Your task to perform on an android device: open app "Google Chrome" Image 0: 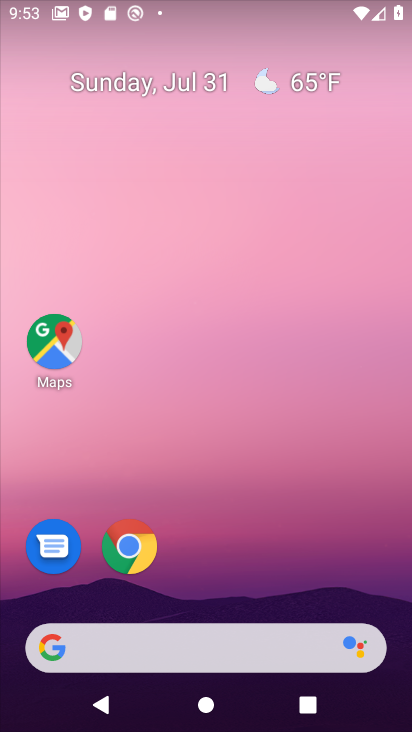
Step 0: drag from (241, 554) to (322, 10)
Your task to perform on an android device: open app "Google Chrome" Image 1: 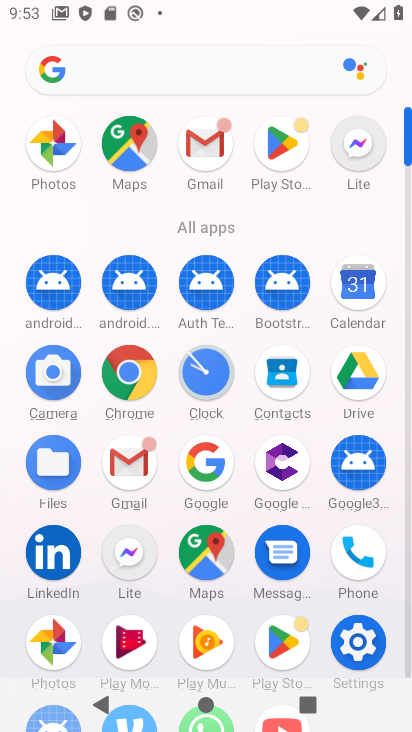
Step 1: click (299, 166)
Your task to perform on an android device: open app "Google Chrome" Image 2: 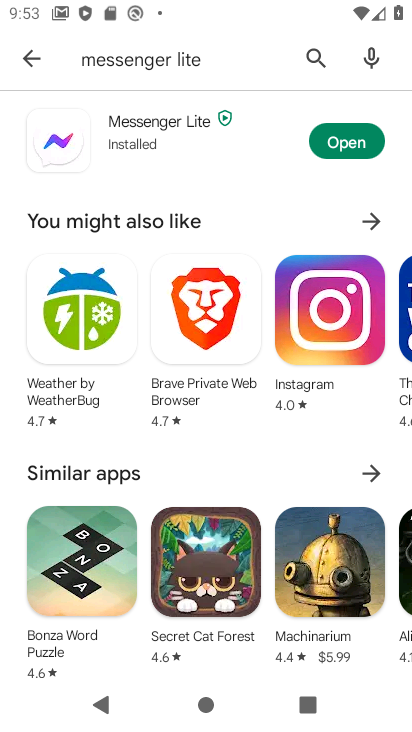
Step 2: click (308, 59)
Your task to perform on an android device: open app "Google Chrome" Image 3: 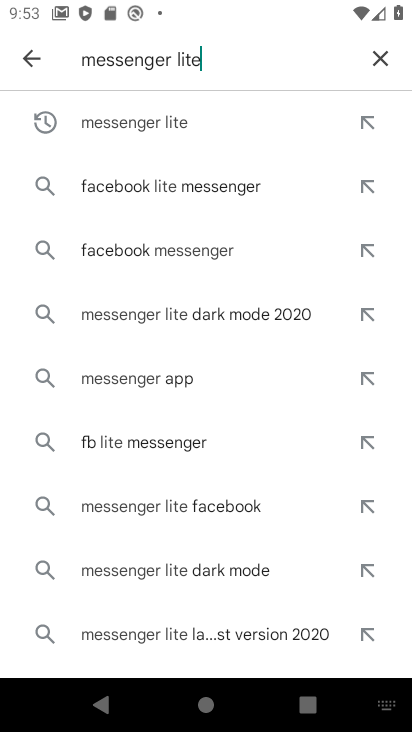
Step 3: click (383, 57)
Your task to perform on an android device: open app "Google Chrome" Image 4: 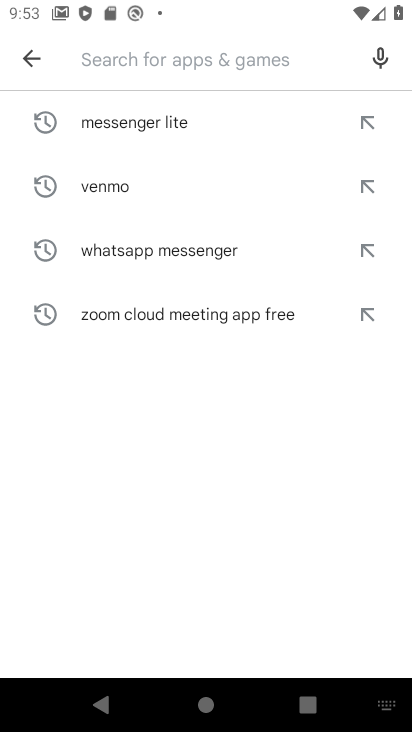
Step 4: click (158, 52)
Your task to perform on an android device: open app "Google Chrome" Image 5: 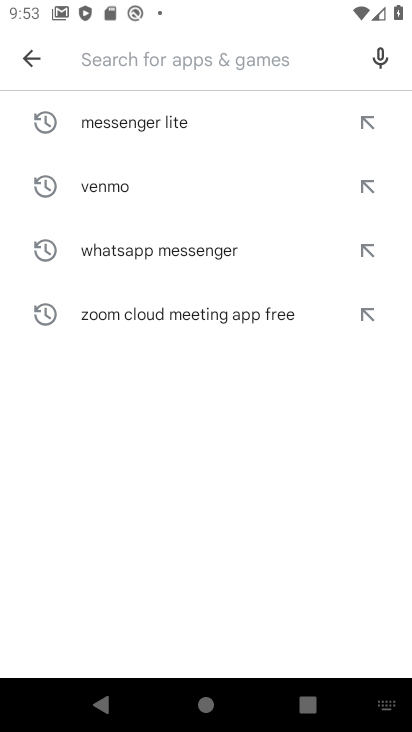
Step 5: type "google chrome"
Your task to perform on an android device: open app "Google Chrome" Image 6: 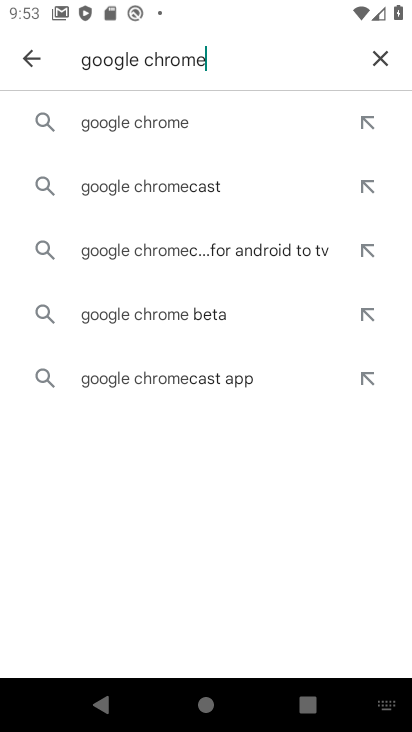
Step 6: click (108, 119)
Your task to perform on an android device: open app "Google Chrome" Image 7: 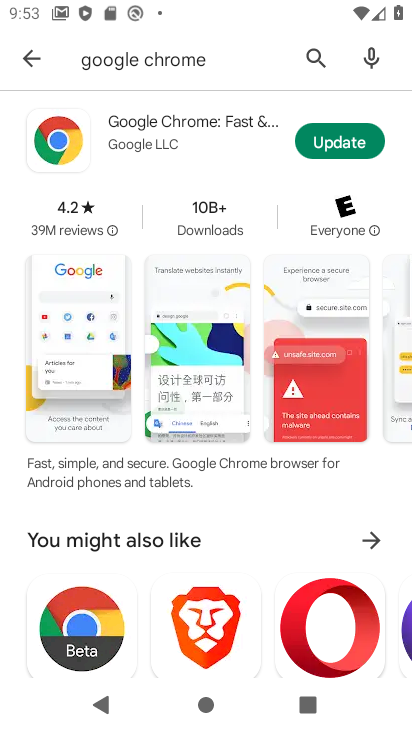
Step 7: click (164, 147)
Your task to perform on an android device: open app "Google Chrome" Image 8: 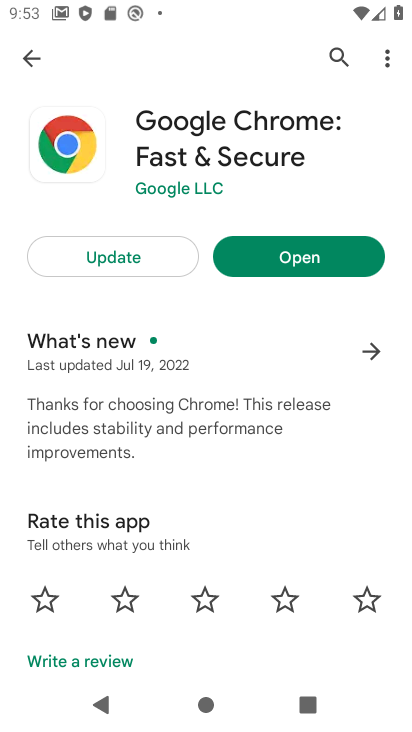
Step 8: click (360, 266)
Your task to perform on an android device: open app "Google Chrome" Image 9: 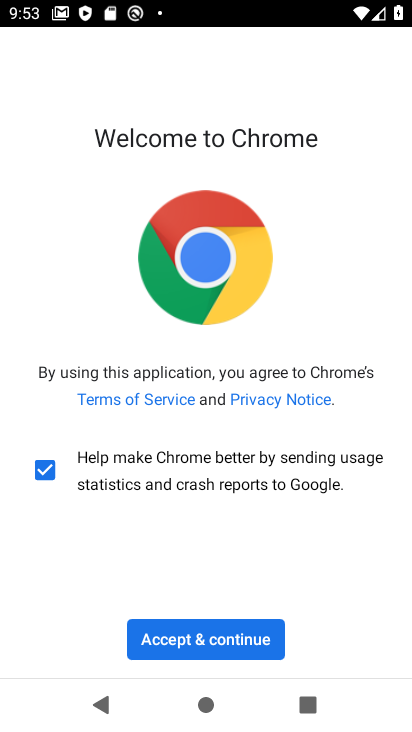
Step 9: task complete